Your task to perform on an android device: turn off priority inbox in the gmail app Image 0: 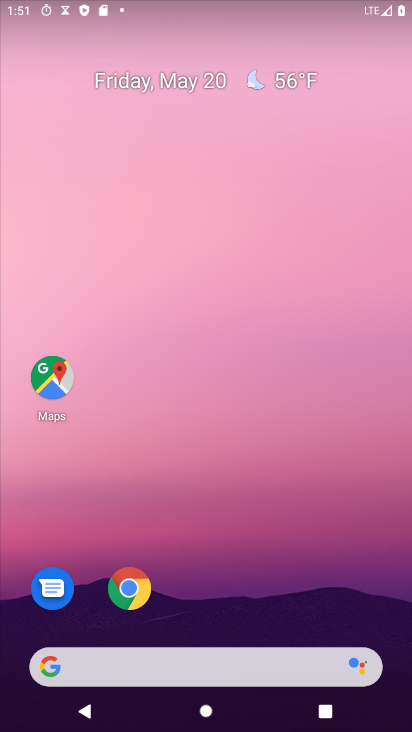
Step 0: drag from (132, 399) to (268, 201)
Your task to perform on an android device: turn off priority inbox in the gmail app Image 1: 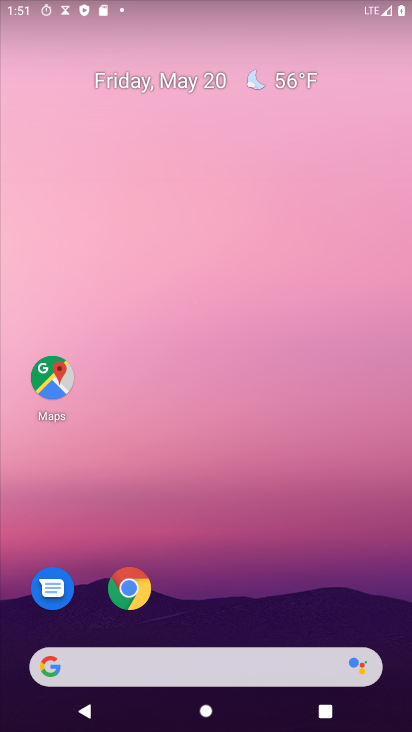
Step 1: drag from (61, 569) to (382, 95)
Your task to perform on an android device: turn off priority inbox in the gmail app Image 2: 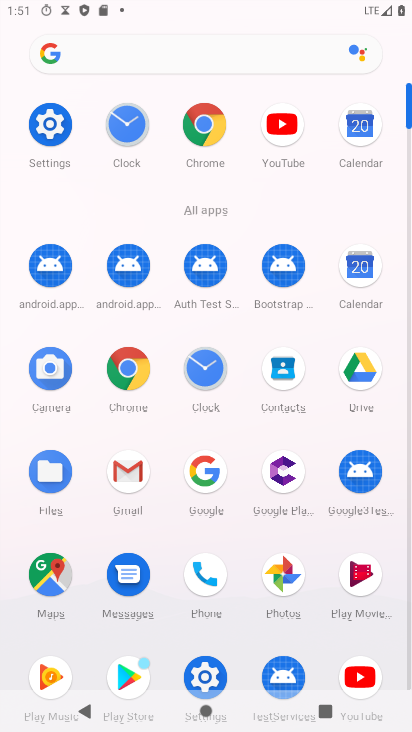
Step 2: click (123, 469)
Your task to perform on an android device: turn off priority inbox in the gmail app Image 3: 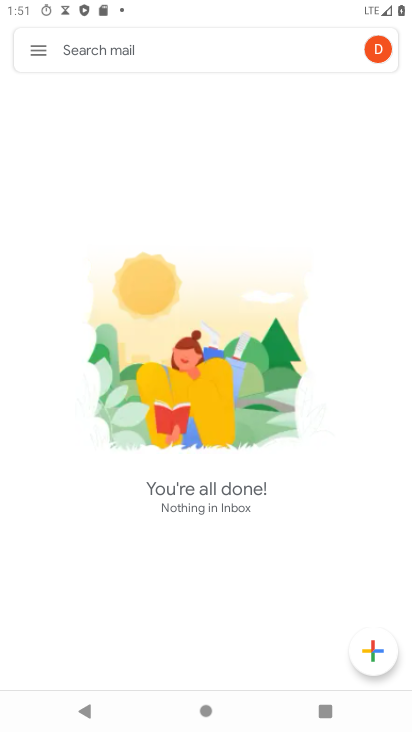
Step 3: click (45, 47)
Your task to perform on an android device: turn off priority inbox in the gmail app Image 4: 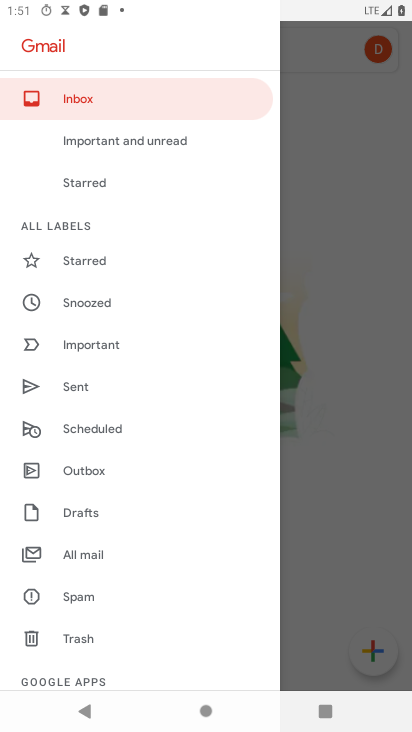
Step 4: drag from (90, 638) to (216, 165)
Your task to perform on an android device: turn off priority inbox in the gmail app Image 5: 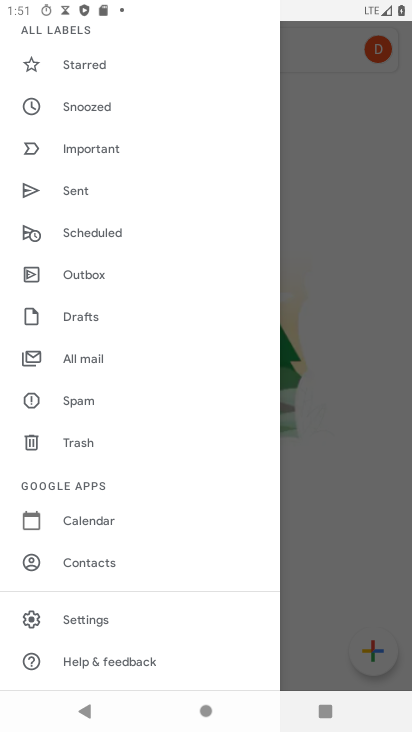
Step 5: click (84, 625)
Your task to perform on an android device: turn off priority inbox in the gmail app Image 6: 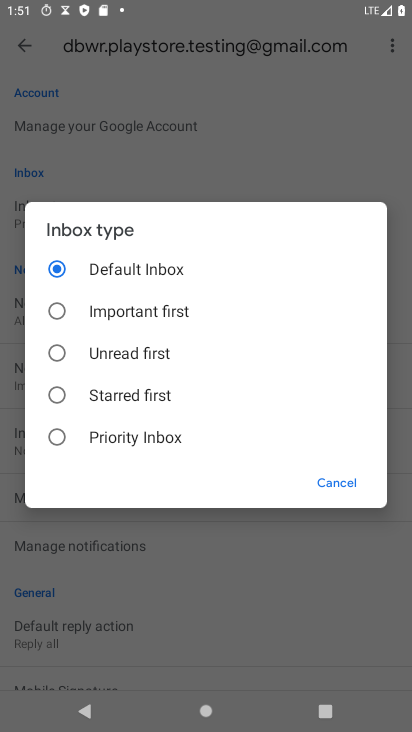
Step 6: click (331, 477)
Your task to perform on an android device: turn off priority inbox in the gmail app Image 7: 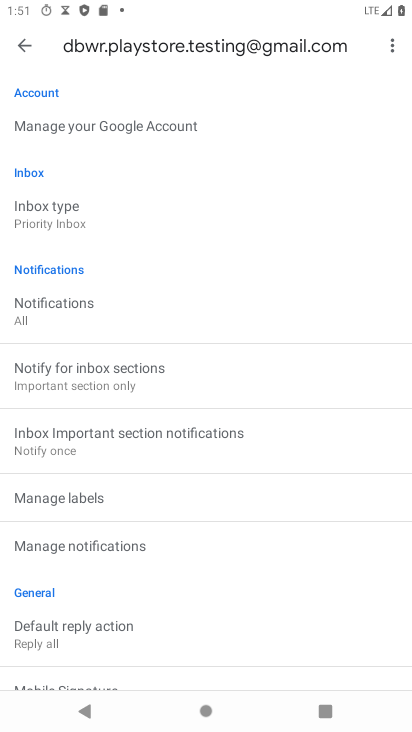
Step 7: click (154, 220)
Your task to perform on an android device: turn off priority inbox in the gmail app Image 8: 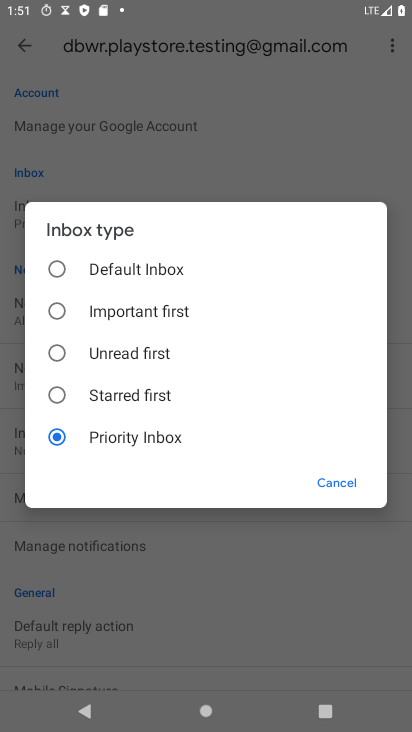
Step 8: click (130, 315)
Your task to perform on an android device: turn off priority inbox in the gmail app Image 9: 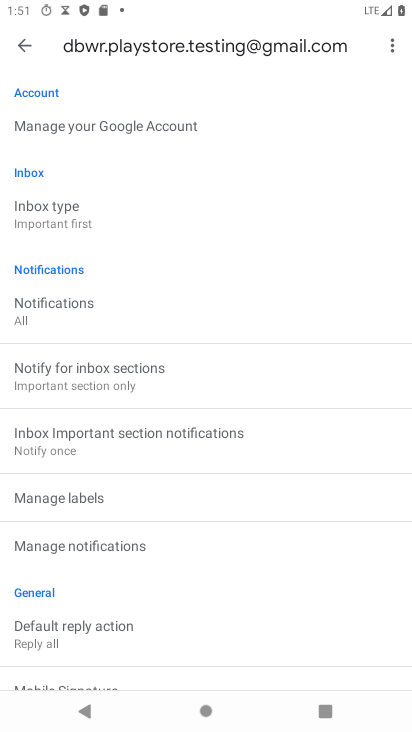
Step 9: task complete